Your task to perform on an android device: Go to CNN.com Image 0: 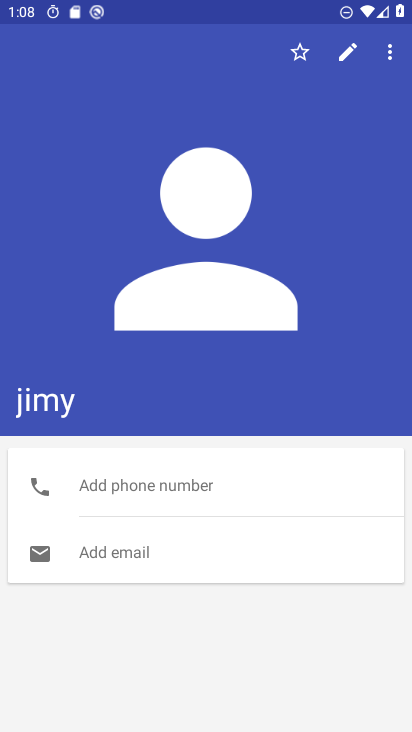
Step 0: press home button
Your task to perform on an android device: Go to CNN.com Image 1: 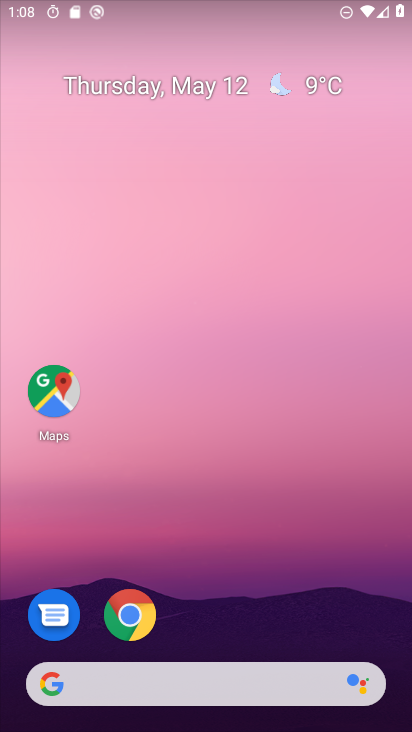
Step 1: click (134, 614)
Your task to perform on an android device: Go to CNN.com Image 2: 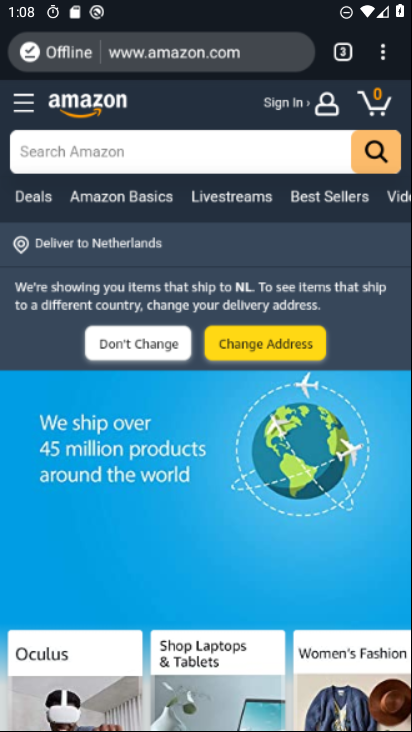
Step 2: click (227, 47)
Your task to perform on an android device: Go to CNN.com Image 3: 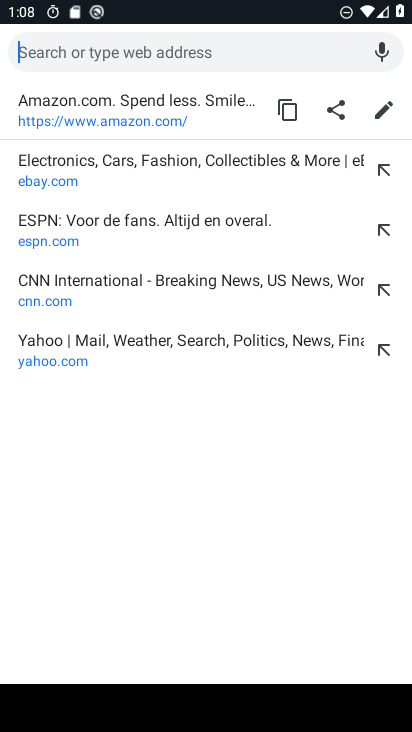
Step 3: type "cnn.com"
Your task to perform on an android device: Go to CNN.com Image 4: 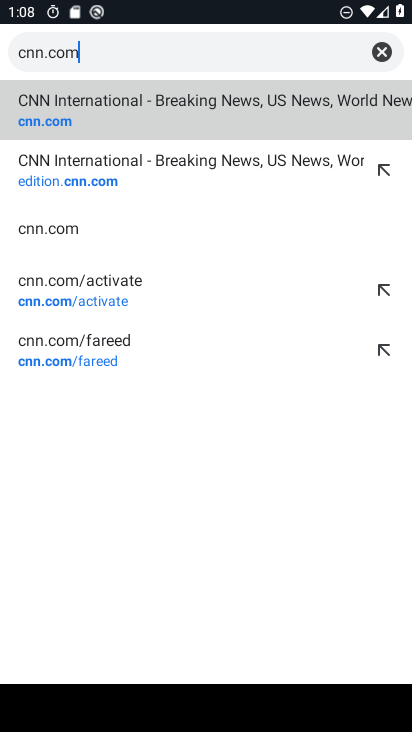
Step 4: click (146, 101)
Your task to perform on an android device: Go to CNN.com Image 5: 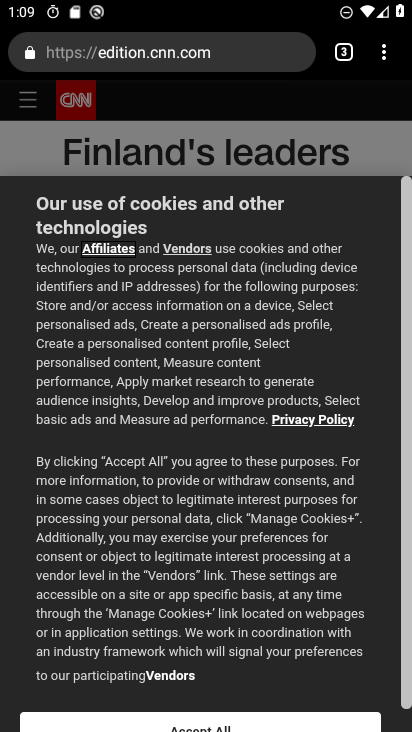
Step 5: task complete